Your task to perform on an android device: open app "Reddit" (install if not already installed) Image 0: 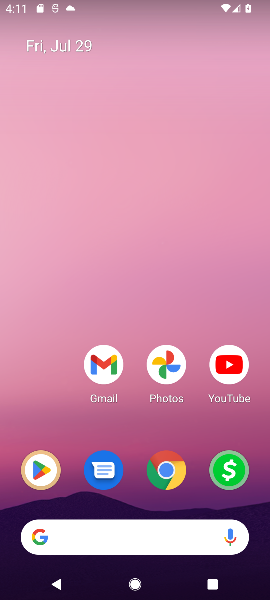
Step 0: click (40, 477)
Your task to perform on an android device: open app "Reddit" (install if not already installed) Image 1: 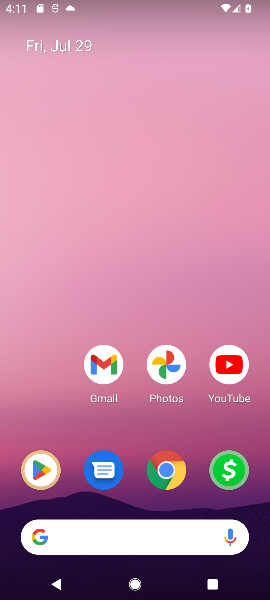
Step 1: click (40, 477)
Your task to perform on an android device: open app "Reddit" (install if not already installed) Image 2: 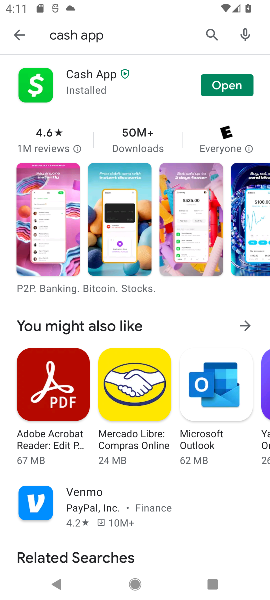
Step 2: click (212, 31)
Your task to perform on an android device: open app "Reddit" (install if not already installed) Image 3: 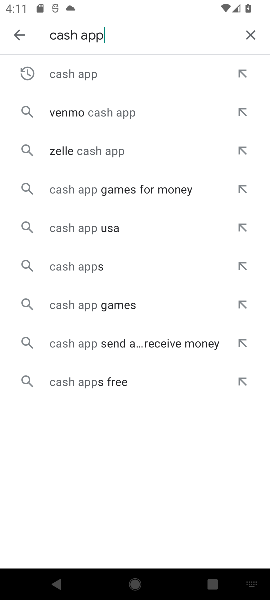
Step 3: click (248, 31)
Your task to perform on an android device: open app "Reddit" (install if not already installed) Image 4: 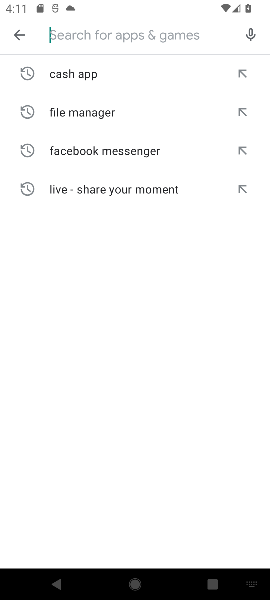
Step 4: type "Reddit"
Your task to perform on an android device: open app "Reddit" (install if not already installed) Image 5: 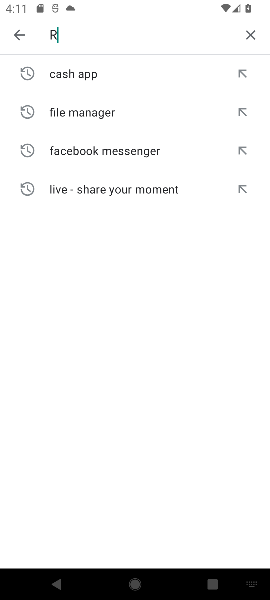
Step 5: type ""
Your task to perform on an android device: open app "Reddit" (install if not already installed) Image 6: 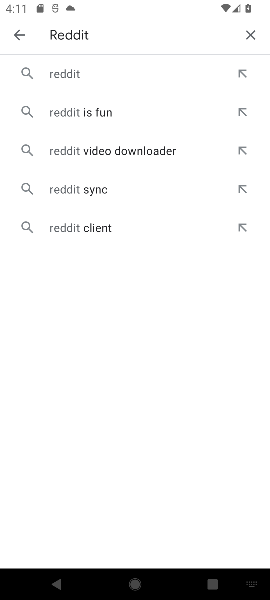
Step 6: click (79, 77)
Your task to perform on an android device: open app "Reddit" (install if not already installed) Image 7: 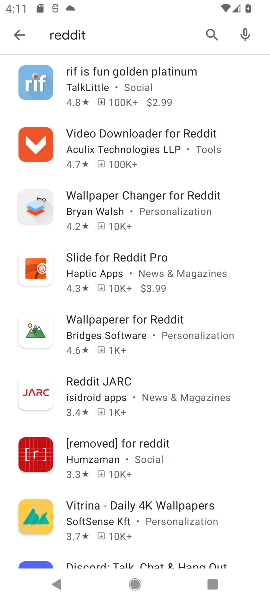
Step 7: task complete